Your task to perform on an android device: Search for Italian restaurants on Maps Image 0: 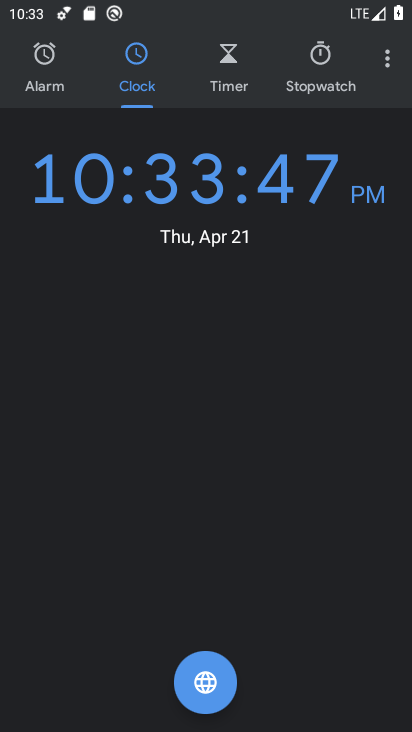
Step 0: press home button
Your task to perform on an android device: Search for Italian restaurants on Maps Image 1: 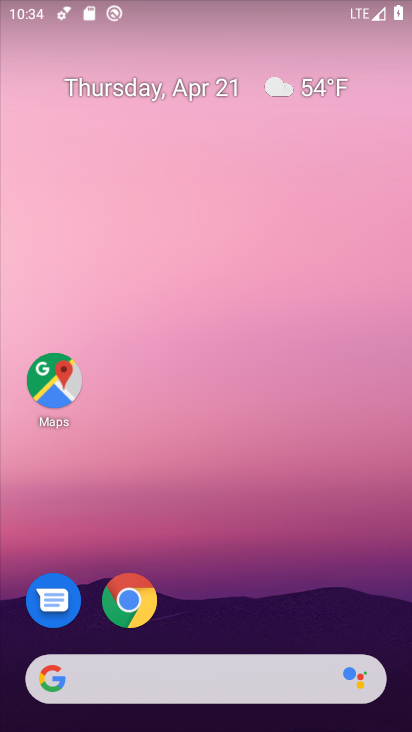
Step 1: click (54, 381)
Your task to perform on an android device: Search for Italian restaurants on Maps Image 2: 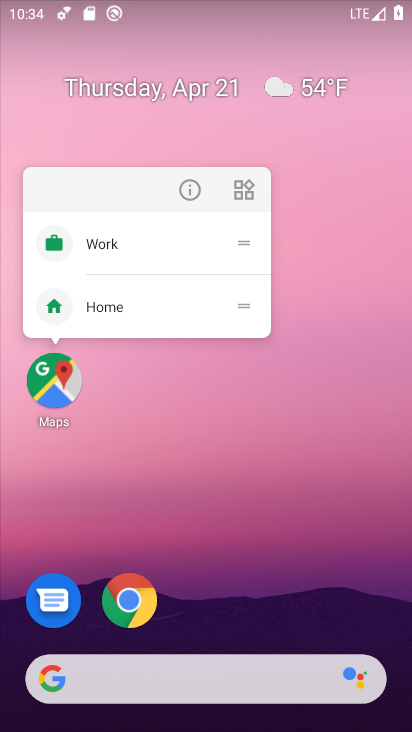
Step 2: click (60, 370)
Your task to perform on an android device: Search for Italian restaurants on Maps Image 3: 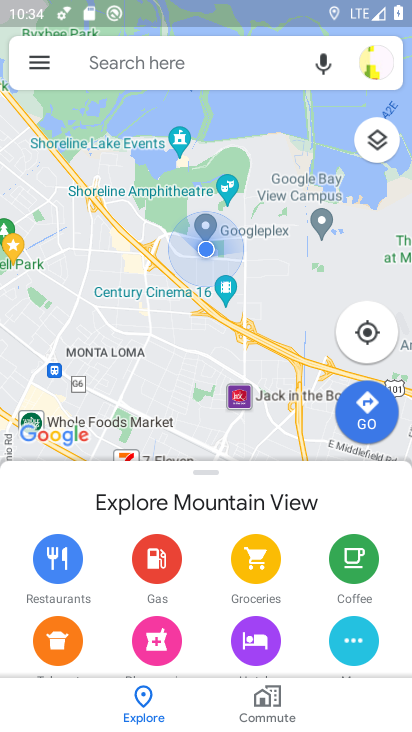
Step 3: click (159, 56)
Your task to perform on an android device: Search for Italian restaurants on Maps Image 4: 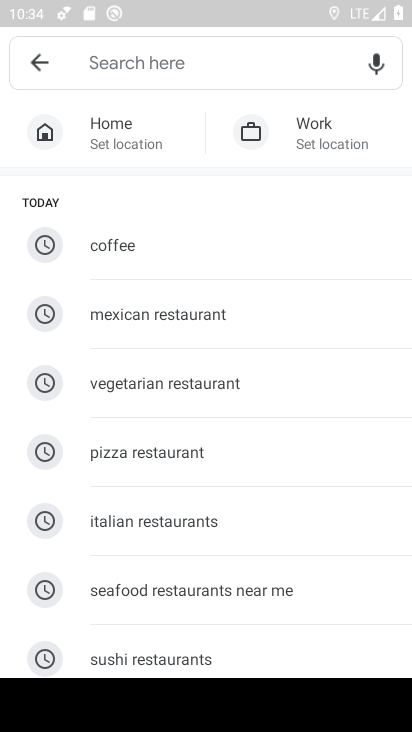
Step 4: type "It"
Your task to perform on an android device: Search for Italian restaurants on Maps Image 5: 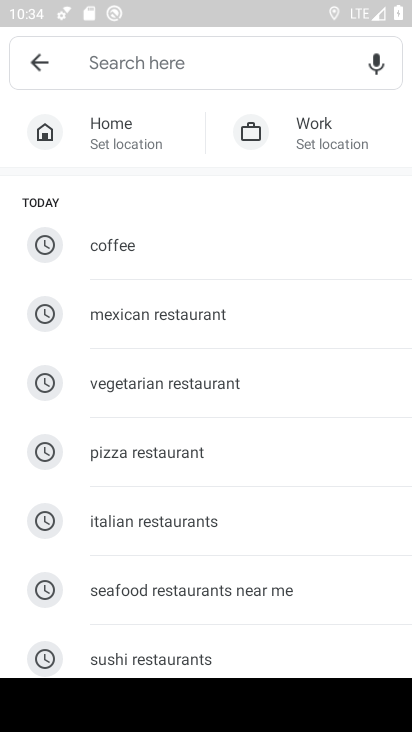
Step 5: click (207, 525)
Your task to perform on an android device: Search for Italian restaurants on Maps Image 6: 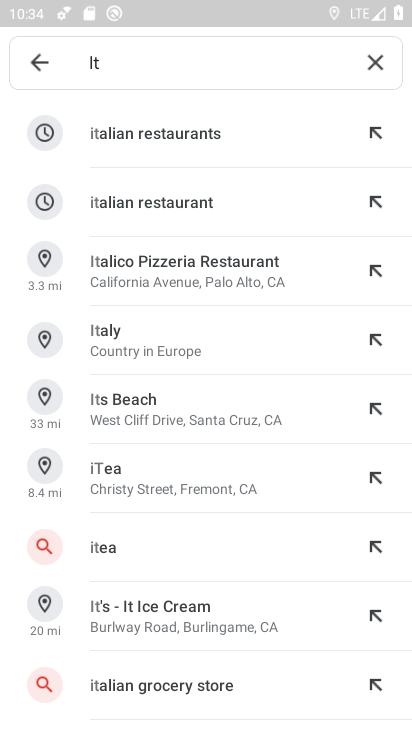
Step 6: click (197, 144)
Your task to perform on an android device: Search for Italian restaurants on Maps Image 7: 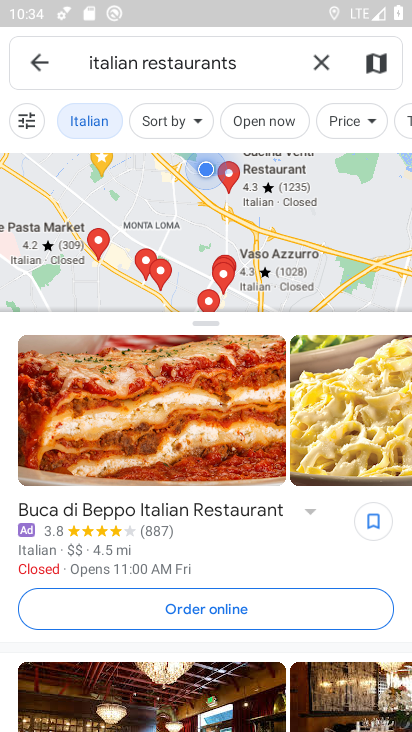
Step 7: task complete